Your task to perform on an android device: set default search engine in the chrome app Image 0: 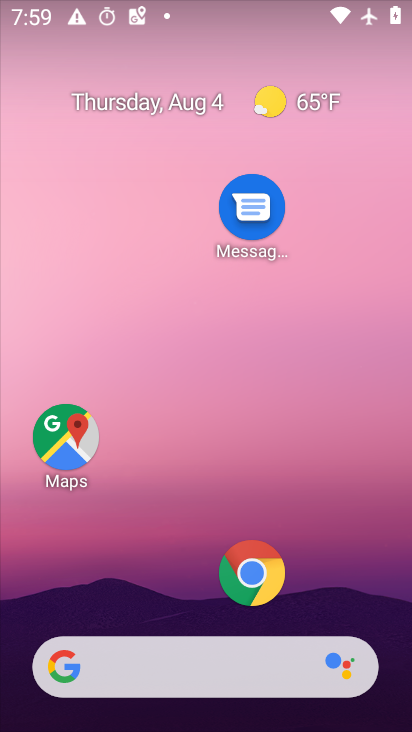
Step 0: press home button
Your task to perform on an android device: set default search engine in the chrome app Image 1: 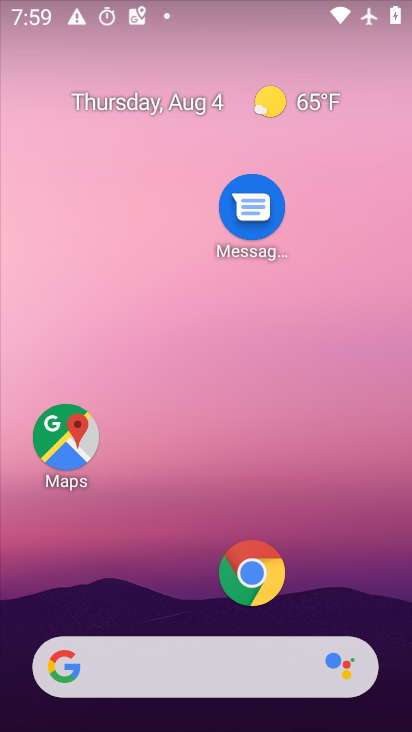
Step 1: drag from (210, 571) to (281, 228)
Your task to perform on an android device: set default search engine in the chrome app Image 2: 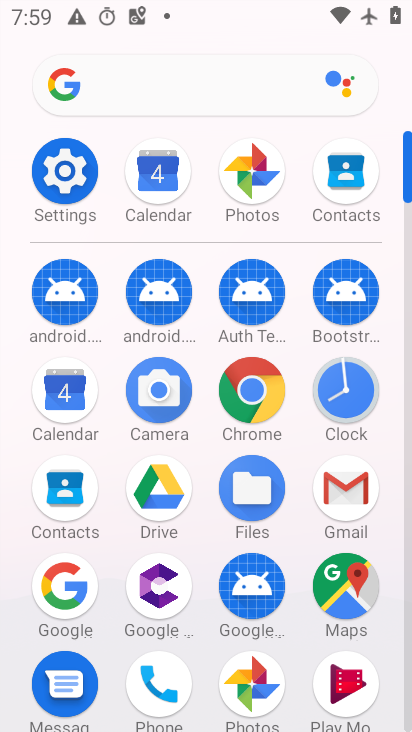
Step 2: click (253, 389)
Your task to perform on an android device: set default search engine in the chrome app Image 3: 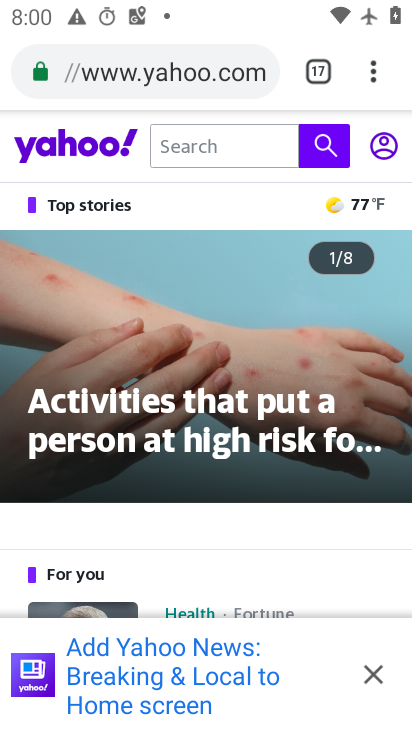
Step 3: drag from (377, 68) to (191, 575)
Your task to perform on an android device: set default search engine in the chrome app Image 4: 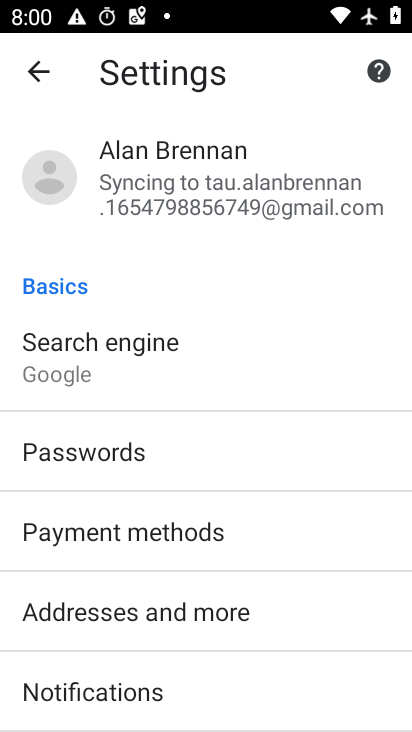
Step 4: click (93, 340)
Your task to perform on an android device: set default search engine in the chrome app Image 5: 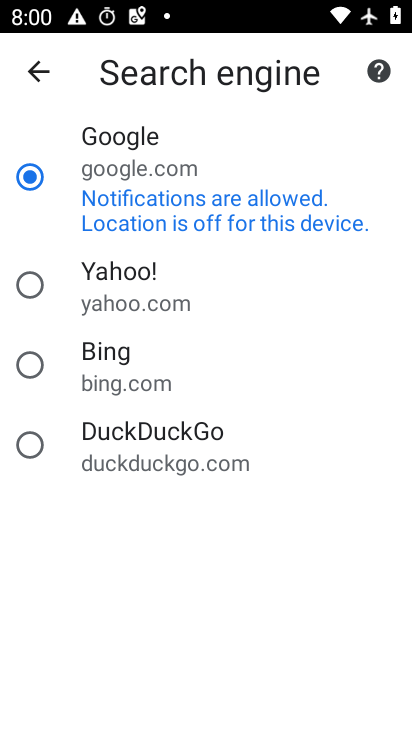
Step 5: click (34, 283)
Your task to perform on an android device: set default search engine in the chrome app Image 6: 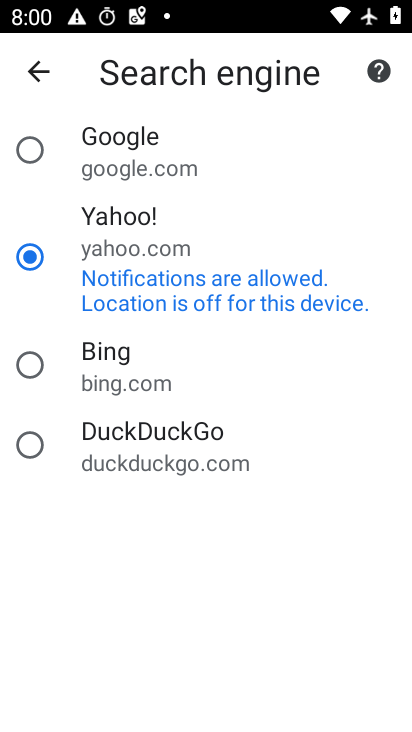
Step 6: task complete